Your task to perform on an android device: toggle priority inbox in the gmail app Image 0: 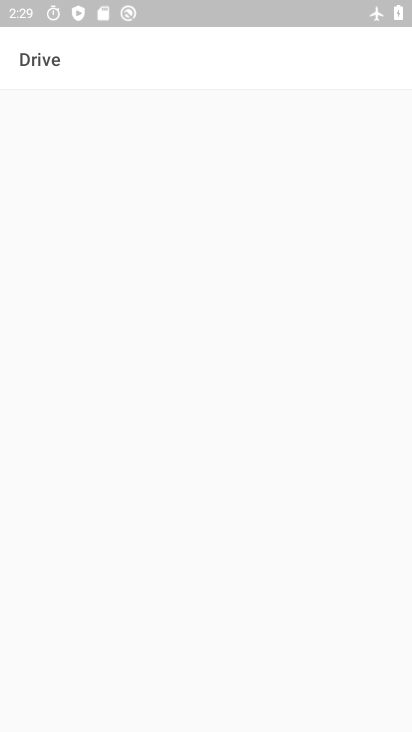
Step 0: press back button
Your task to perform on an android device: toggle priority inbox in the gmail app Image 1: 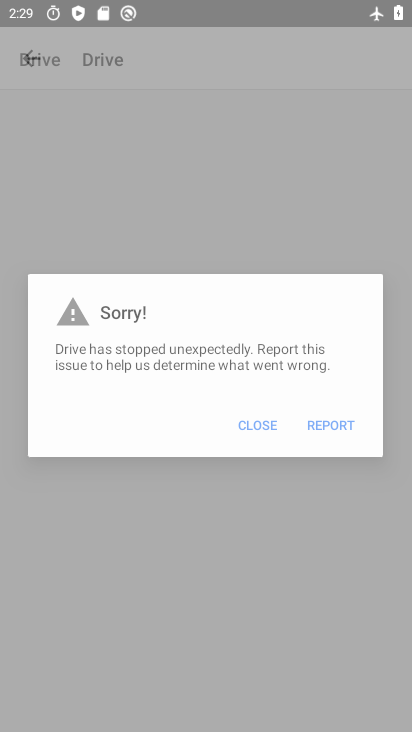
Step 1: press back button
Your task to perform on an android device: toggle priority inbox in the gmail app Image 2: 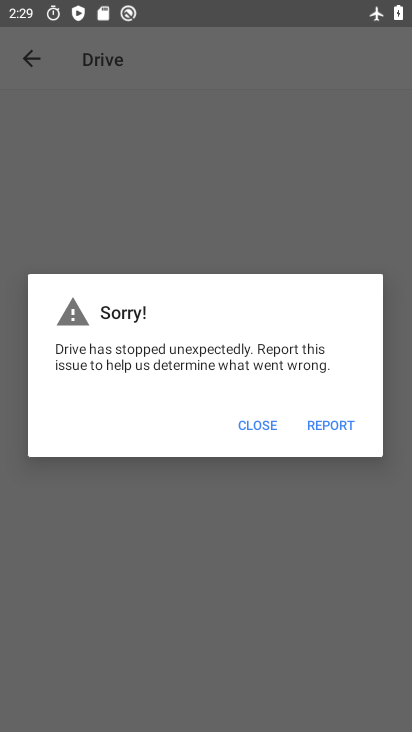
Step 2: press back button
Your task to perform on an android device: toggle priority inbox in the gmail app Image 3: 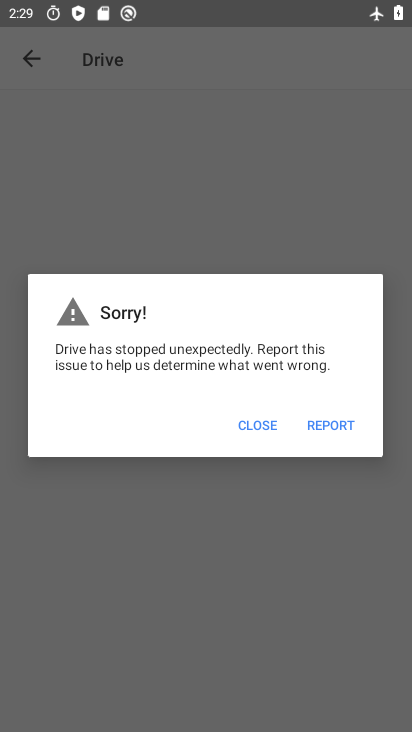
Step 3: press back button
Your task to perform on an android device: toggle priority inbox in the gmail app Image 4: 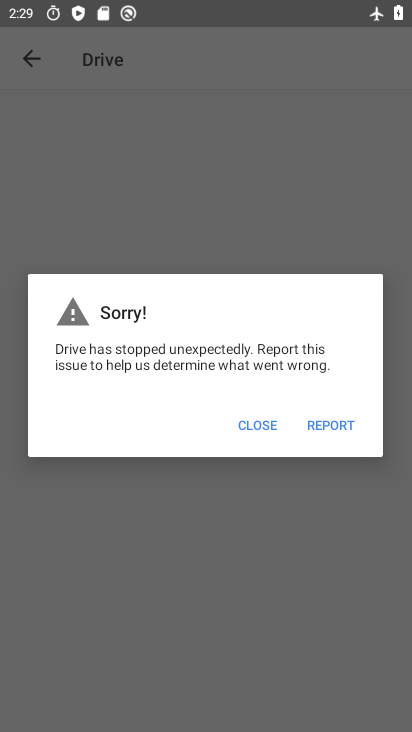
Step 4: press back button
Your task to perform on an android device: toggle priority inbox in the gmail app Image 5: 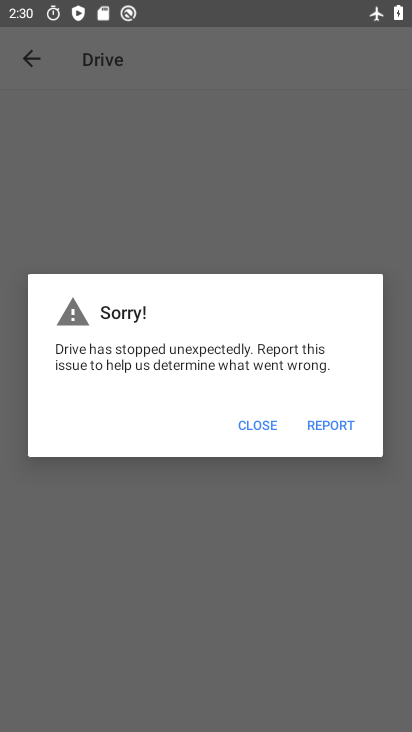
Step 5: press home button
Your task to perform on an android device: toggle priority inbox in the gmail app Image 6: 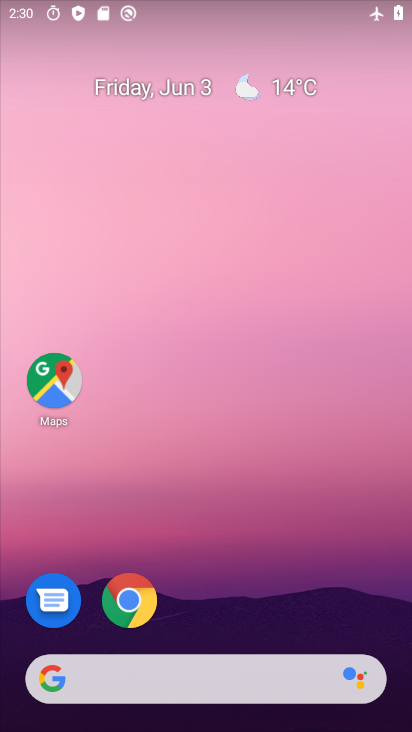
Step 6: drag from (258, 484) to (248, 30)
Your task to perform on an android device: toggle priority inbox in the gmail app Image 7: 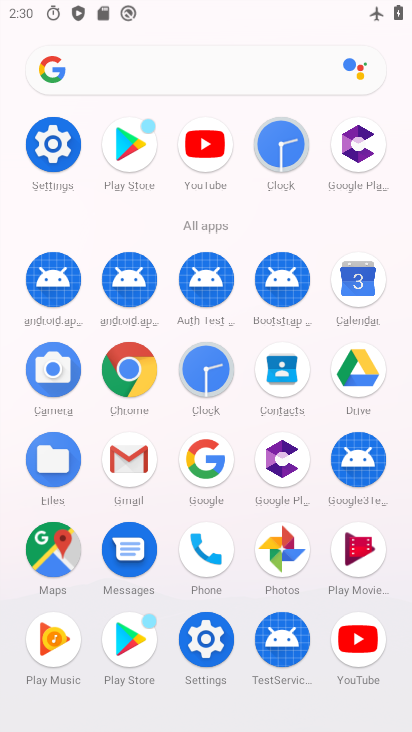
Step 7: click (128, 454)
Your task to perform on an android device: toggle priority inbox in the gmail app Image 8: 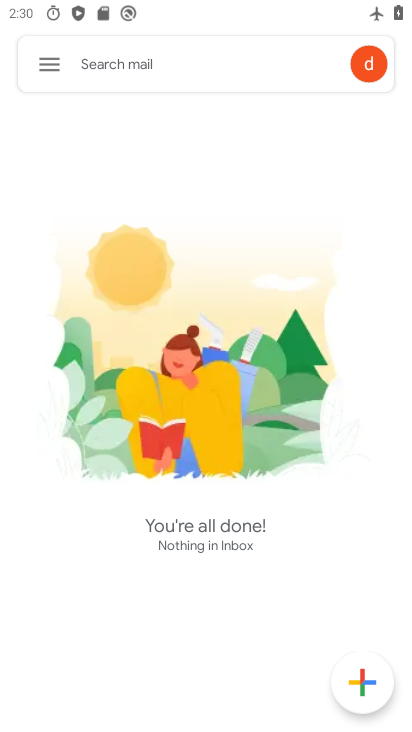
Step 8: click (46, 60)
Your task to perform on an android device: toggle priority inbox in the gmail app Image 9: 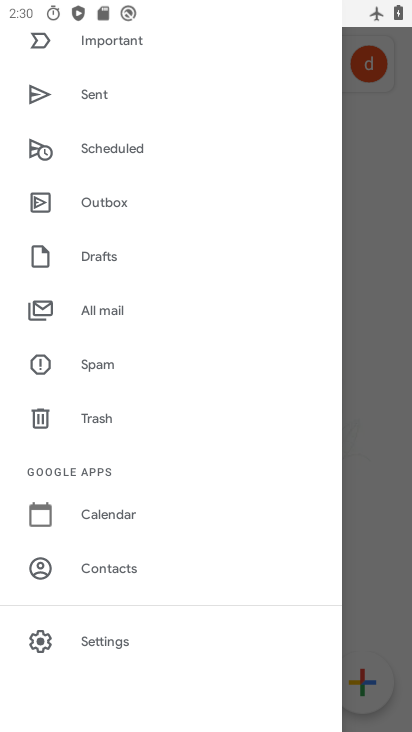
Step 9: click (111, 648)
Your task to perform on an android device: toggle priority inbox in the gmail app Image 10: 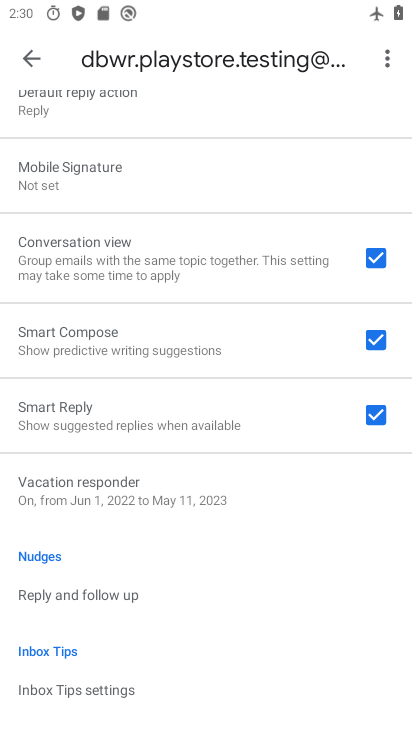
Step 10: task complete